Your task to perform on an android device: Go to ESPN.com Image 0: 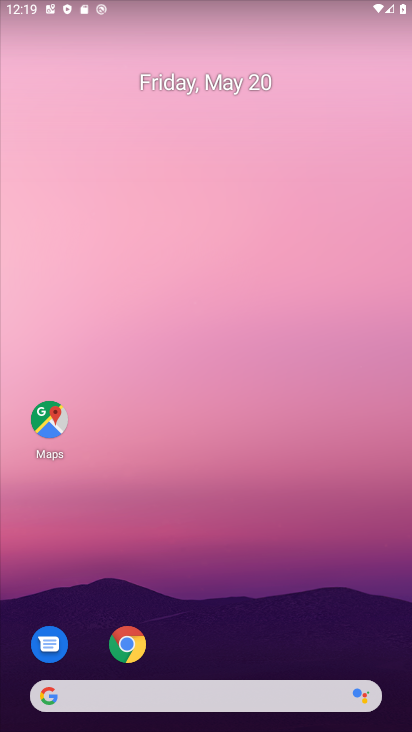
Step 0: click (129, 650)
Your task to perform on an android device: Go to ESPN.com Image 1: 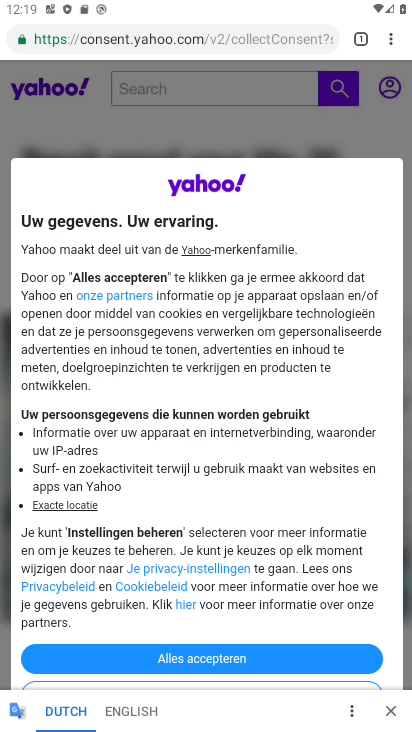
Step 1: click (125, 42)
Your task to perform on an android device: Go to ESPN.com Image 2: 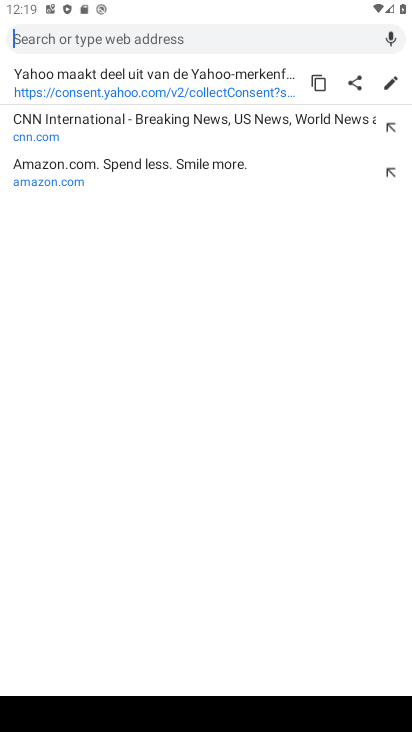
Step 2: type "espn.com"
Your task to perform on an android device: Go to ESPN.com Image 3: 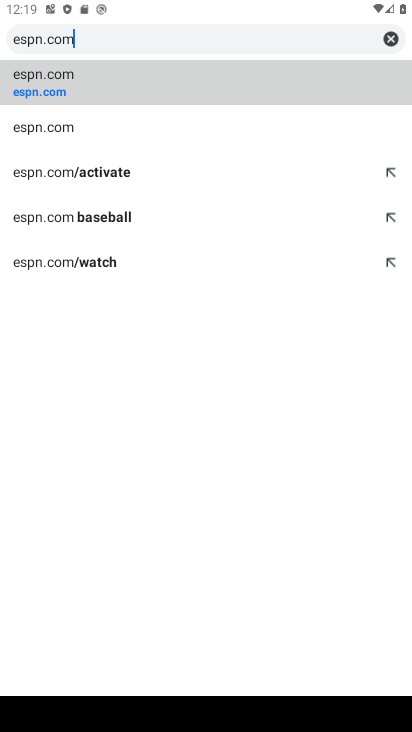
Step 3: click (55, 90)
Your task to perform on an android device: Go to ESPN.com Image 4: 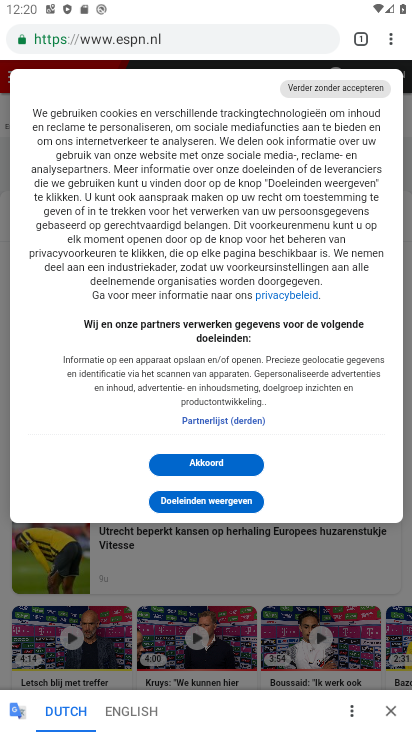
Step 4: task complete